Your task to perform on an android device: turn on priority inbox in the gmail app Image 0: 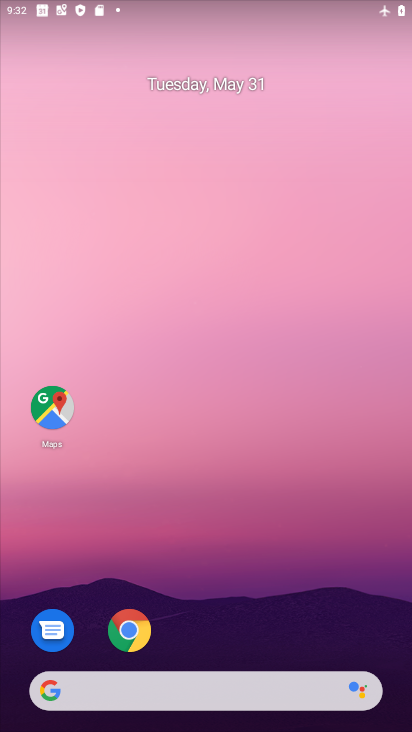
Step 0: drag from (231, 649) to (277, 256)
Your task to perform on an android device: turn on priority inbox in the gmail app Image 1: 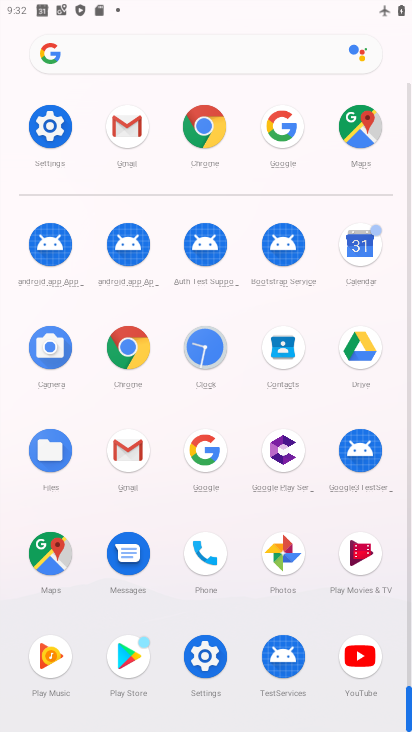
Step 1: click (117, 116)
Your task to perform on an android device: turn on priority inbox in the gmail app Image 2: 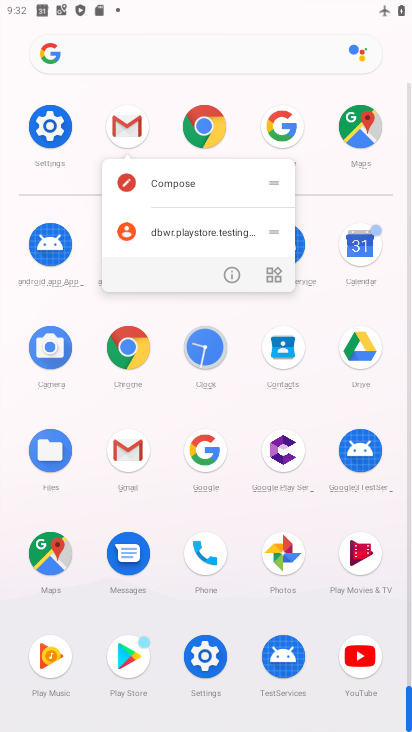
Step 2: click (120, 124)
Your task to perform on an android device: turn on priority inbox in the gmail app Image 3: 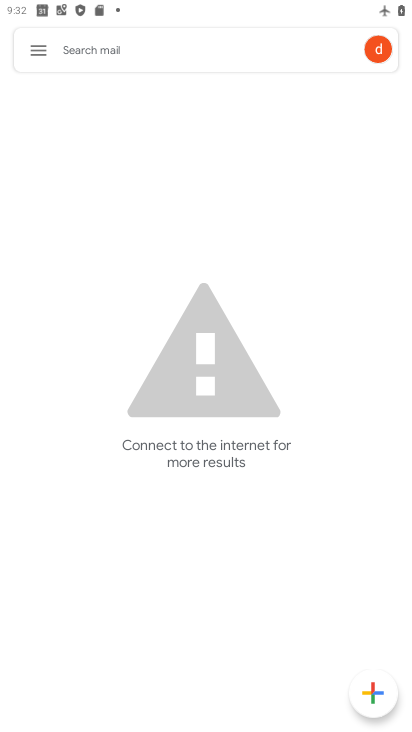
Step 3: click (23, 55)
Your task to perform on an android device: turn on priority inbox in the gmail app Image 4: 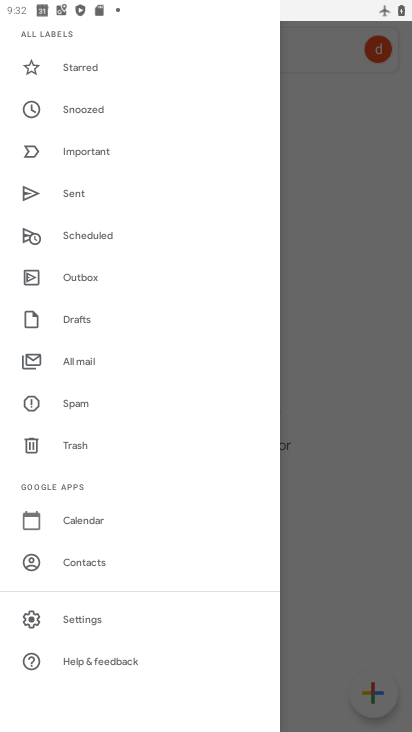
Step 4: click (107, 610)
Your task to perform on an android device: turn on priority inbox in the gmail app Image 5: 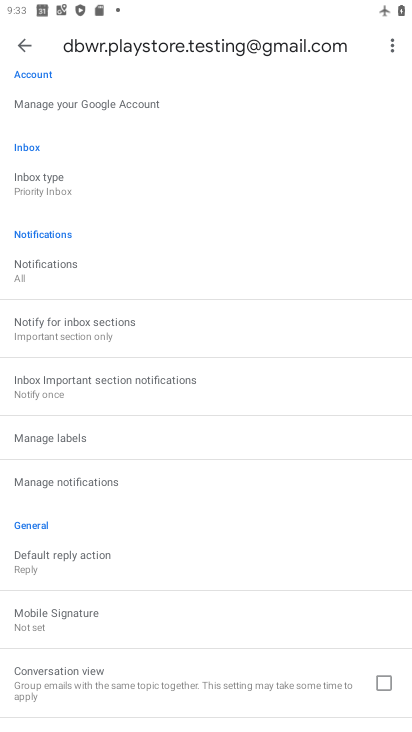
Step 5: click (58, 185)
Your task to perform on an android device: turn on priority inbox in the gmail app Image 6: 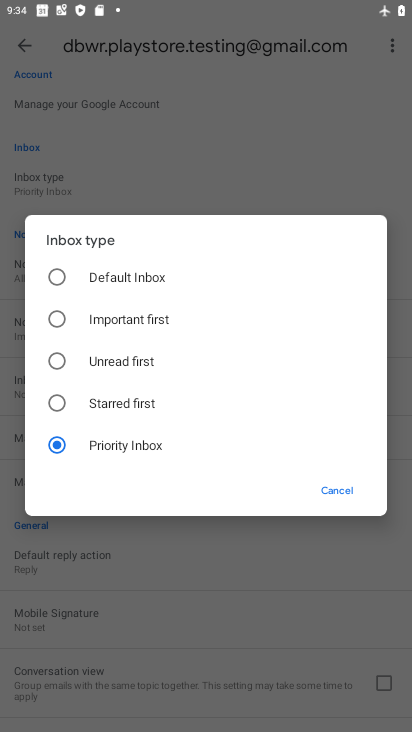
Step 6: task complete